Your task to perform on an android device: Find coffee shops on Maps Image 0: 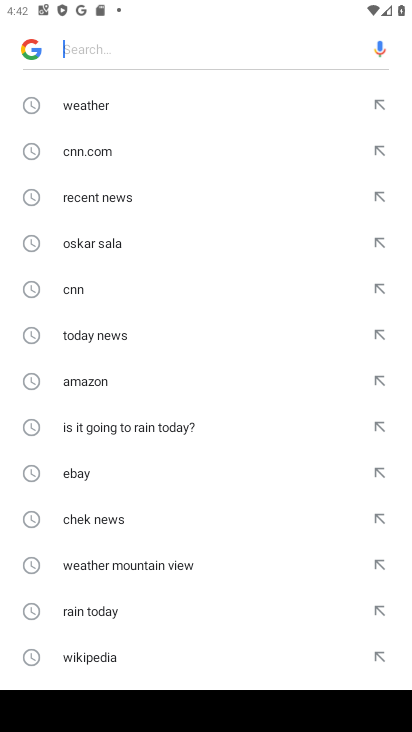
Step 0: press home button
Your task to perform on an android device: Find coffee shops on Maps Image 1: 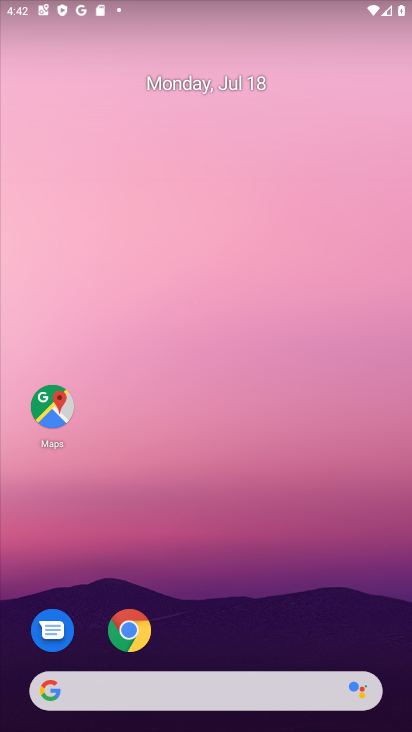
Step 1: click (53, 405)
Your task to perform on an android device: Find coffee shops on Maps Image 2: 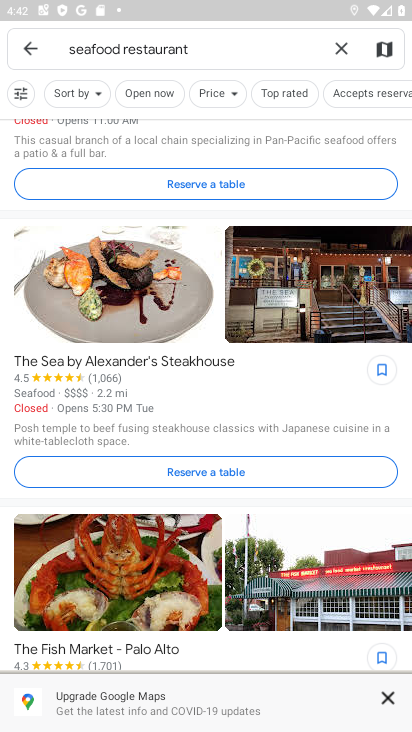
Step 2: click (334, 48)
Your task to perform on an android device: Find coffee shops on Maps Image 3: 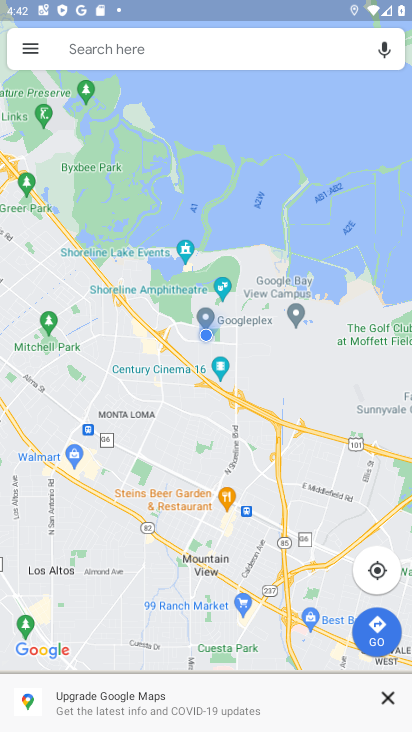
Step 3: click (118, 49)
Your task to perform on an android device: Find coffee shops on Maps Image 4: 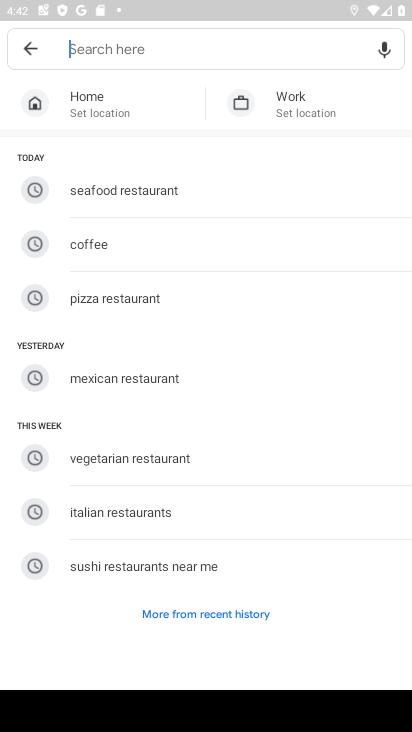
Step 4: click (78, 252)
Your task to perform on an android device: Find coffee shops on Maps Image 5: 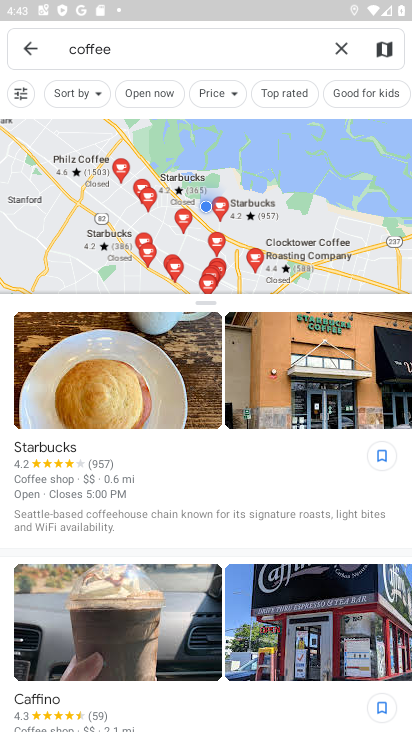
Step 5: task complete